Your task to perform on an android device: Open calendar and show me the third week of next month Image 0: 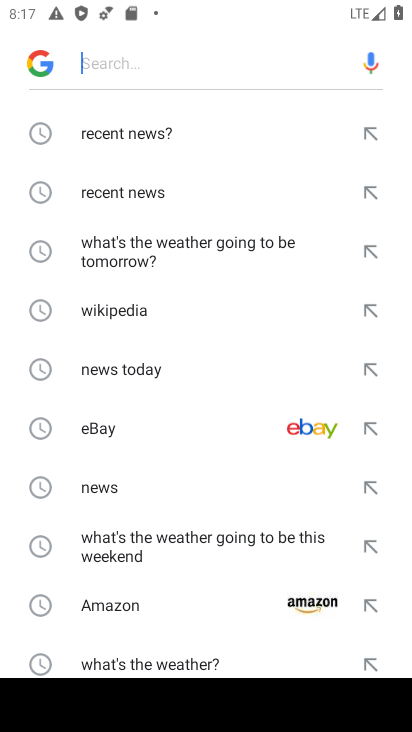
Step 0: press home button
Your task to perform on an android device: Open calendar and show me the third week of next month Image 1: 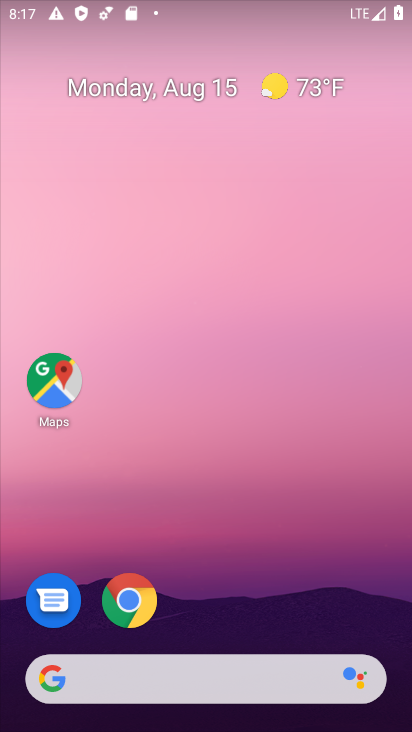
Step 1: drag from (198, 623) to (198, 44)
Your task to perform on an android device: Open calendar and show me the third week of next month Image 2: 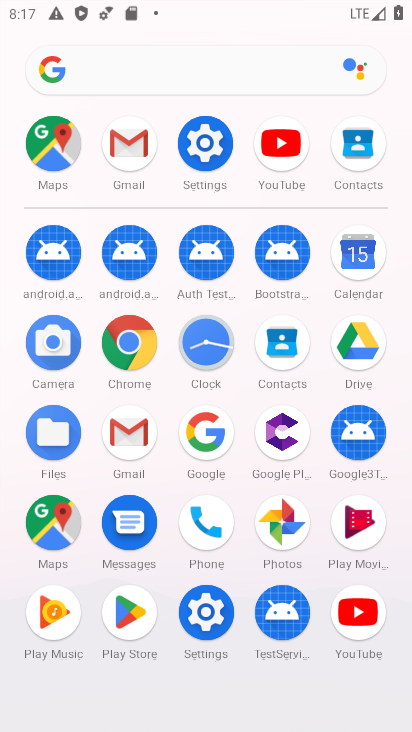
Step 2: click (352, 256)
Your task to perform on an android device: Open calendar and show me the third week of next month Image 3: 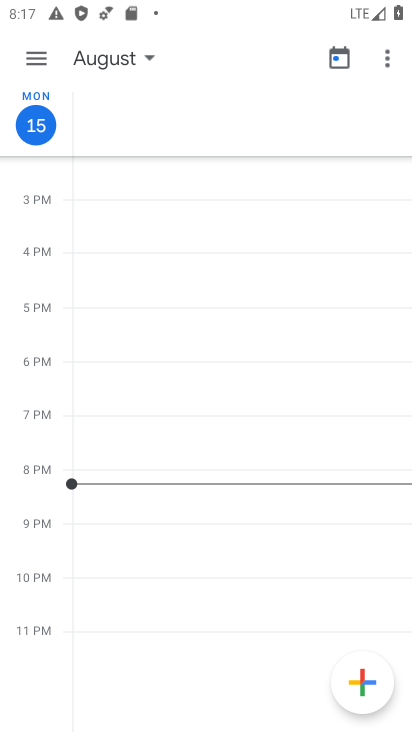
Step 3: click (147, 58)
Your task to perform on an android device: Open calendar and show me the third week of next month Image 4: 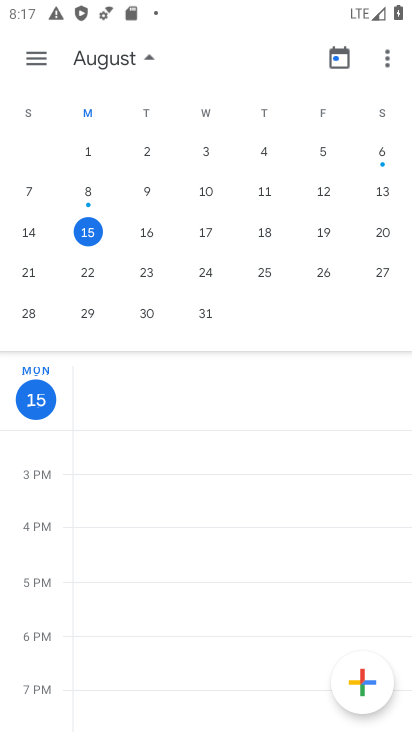
Step 4: drag from (384, 190) to (0, 175)
Your task to perform on an android device: Open calendar and show me the third week of next month Image 5: 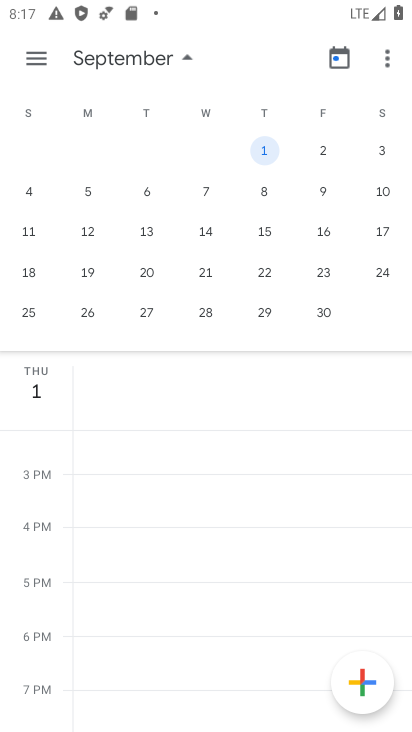
Step 5: click (90, 268)
Your task to perform on an android device: Open calendar and show me the third week of next month Image 6: 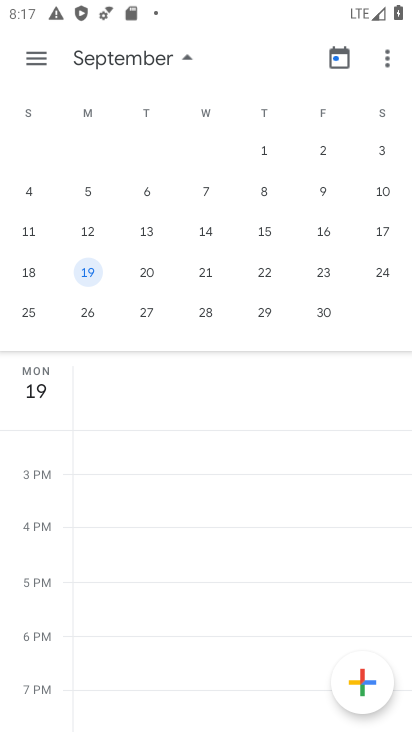
Step 6: click (31, 46)
Your task to perform on an android device: Open calendar and show me the third week of next month Image 7: 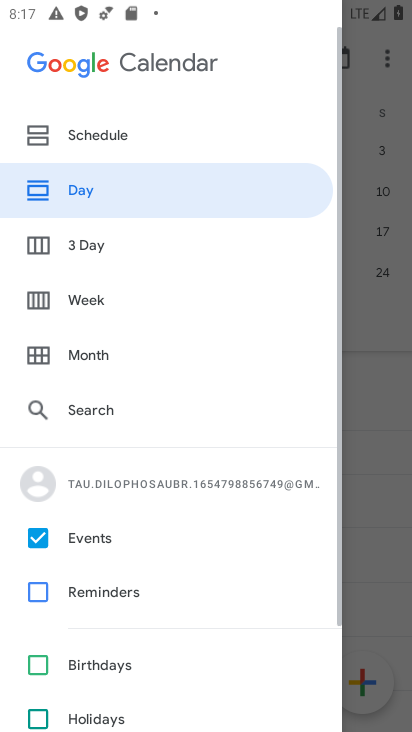
Step 7: click (85, 298)
Your task to perform on an android device: Open calendar and show me the third week of next month Image 8: 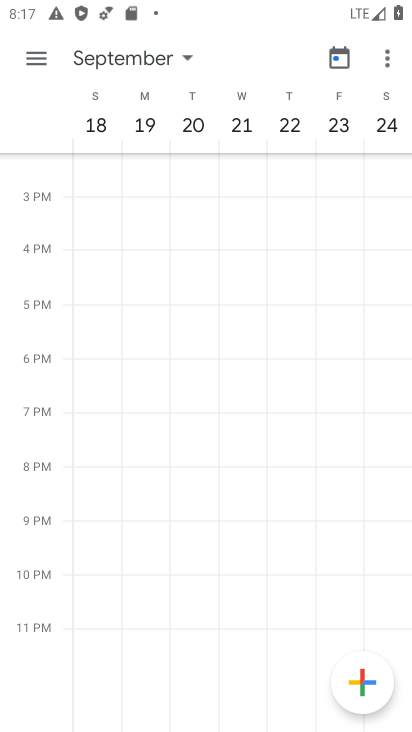
Step 8: task complete